Your task to perform on an android device: Search for a new skincare product Image 0: 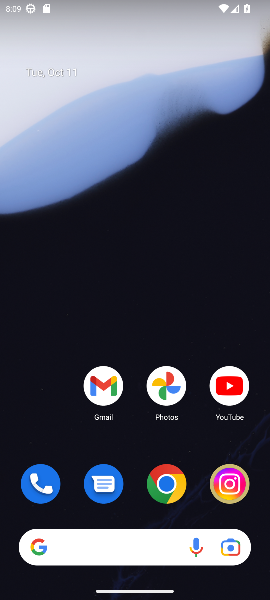
Step 0: click (167, 480)
Your task to perform on an android device: Search for a new skincare product Image 1: 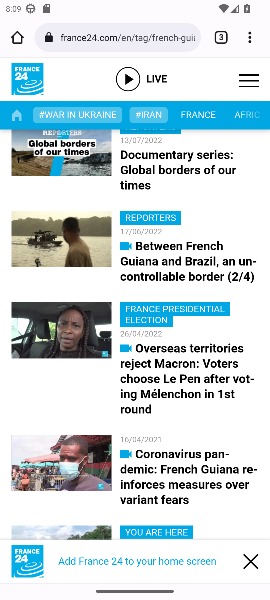
Step 1: click (121, 37)
Your task to perform on an android device: Search for a new skincare product Image 2: 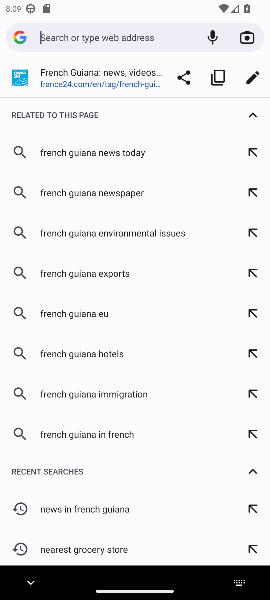
Step 2: type "new skincare product"
Your task to perform on an android device: Search for a new skincare product Image 3: 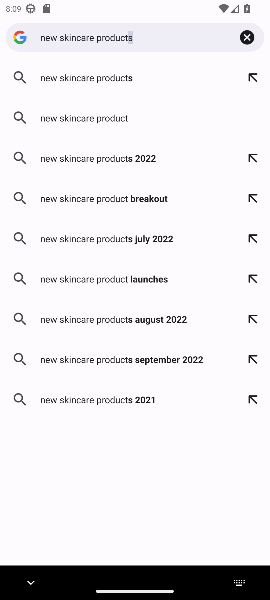
Step 3: click (96, 76)
Your task to perform on an android device: Search for a new skincare product Image 4: 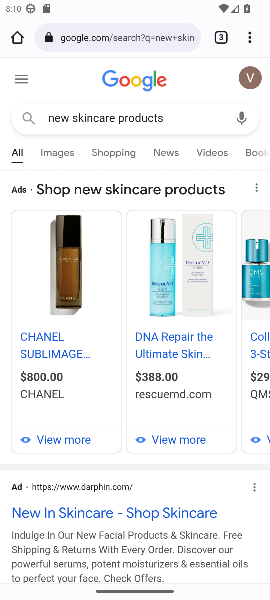
Step 4: task complete